Your task to perform on an android device: Open Chrome and go to settings Image 0: 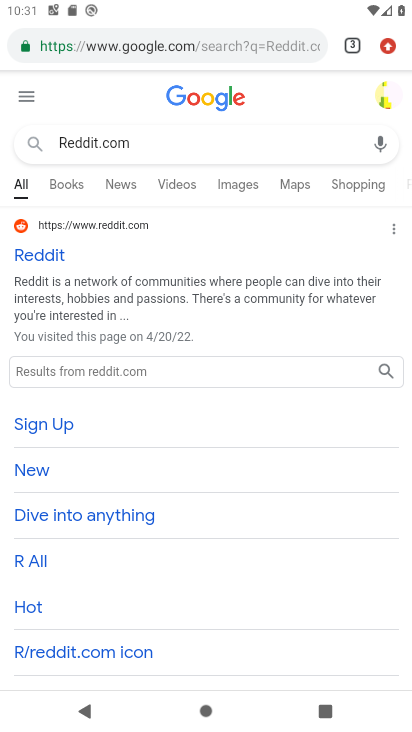
Step 0: click (382, 45)
Your task to perform on an android device: Open Chrome and go to settings Image 1: 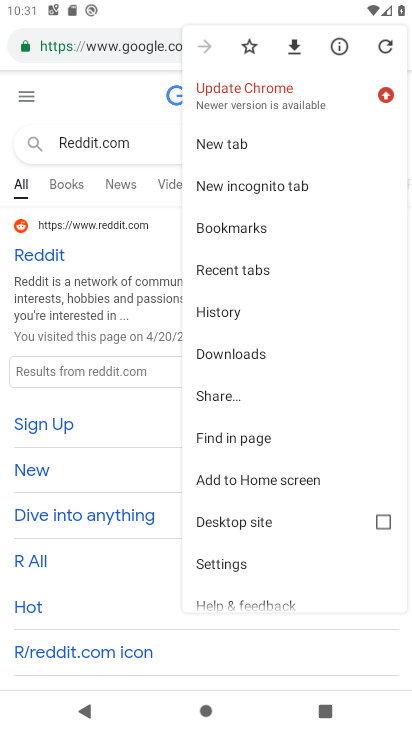
Step 1: click (224, 564)
Your task to perform on an android device: Open Chrome and go to settings Image 2: 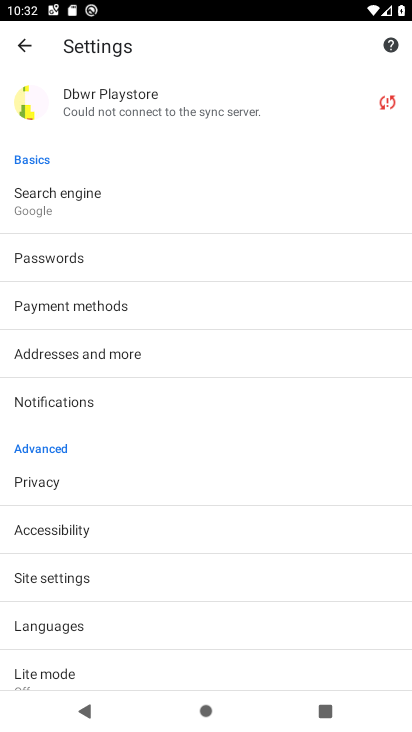
Step 2: task complete